Your task to perform on an android device: Open Youtube and go to "Your channel" Image 0: 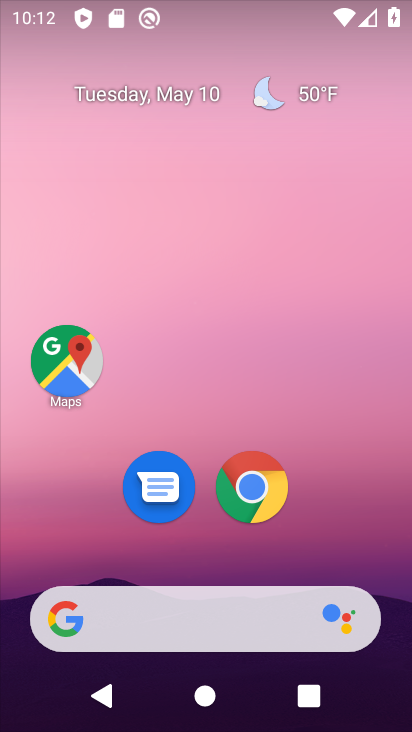
Step 0: drag from (320, 535) to (325, 92)
Your task to perform on an android device: Open Youtube and go to "Your channel" Image 1: 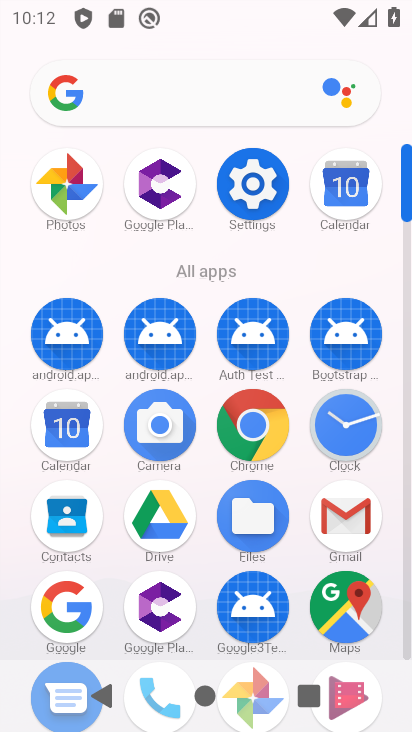
Step 1: click (403, 624)
Your task to perform on an android device: Open Youtube and go to "Your channel" Image 2: 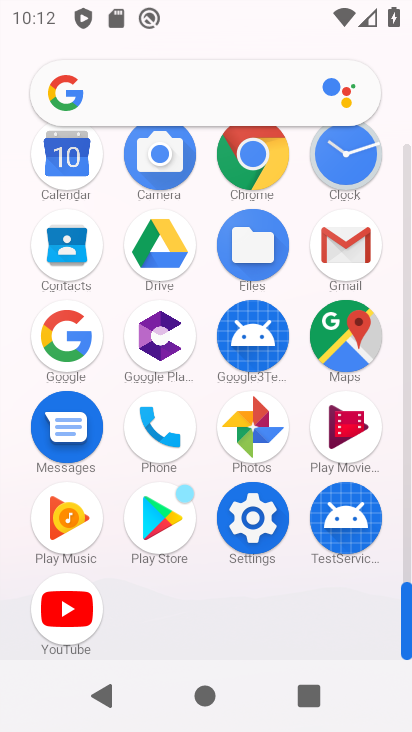
Step 2: click (69, 629)
Your task to perform on an android device: Open Youtube and go to "Your channel" Image 3: 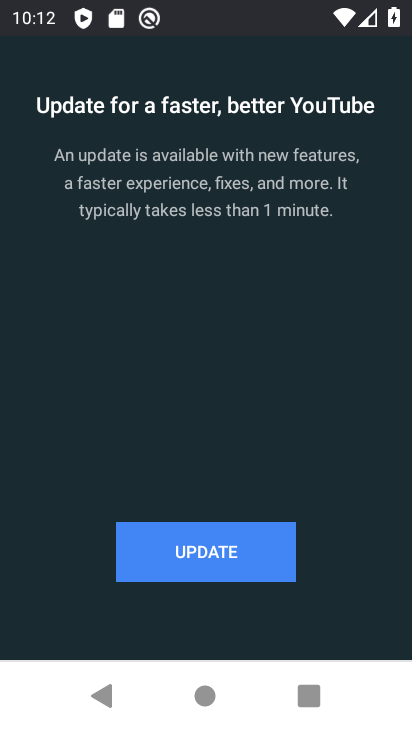
Step 3: click (194, 553)
Your task to perform on an android device: Open Youtube and go to "Your channel" Image 4: 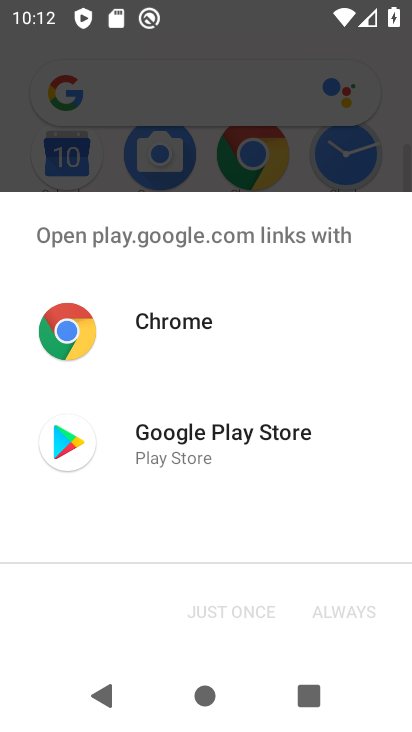
Step 4: click (200, 477)
Your task to perform on an android device: Open Youtube and go to "Your channel" Image 5: 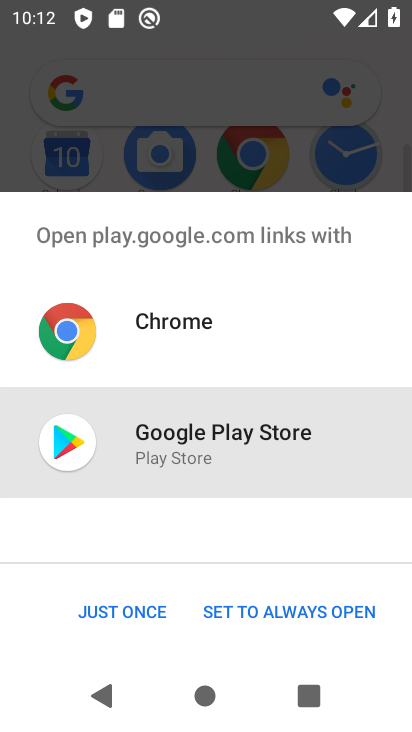
Step 5: click (113, 619)
Your task to perform on an android device: Open Youtube and go to "Your channel" Image 6: 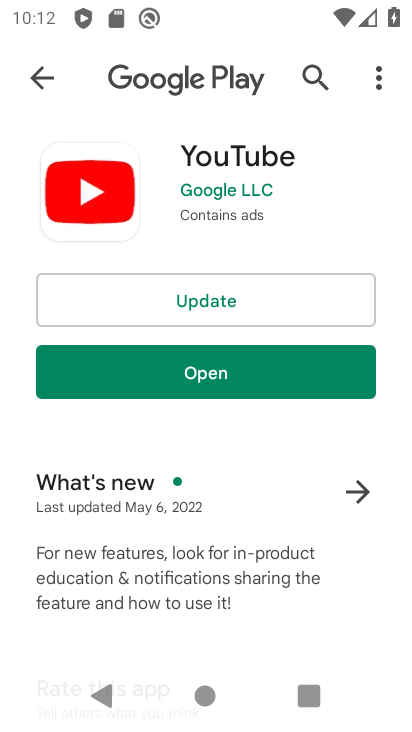
Step 6: click (246, 307)
Your task to perform on an android device: Open Youtube and go to "Your channel" Image 7: 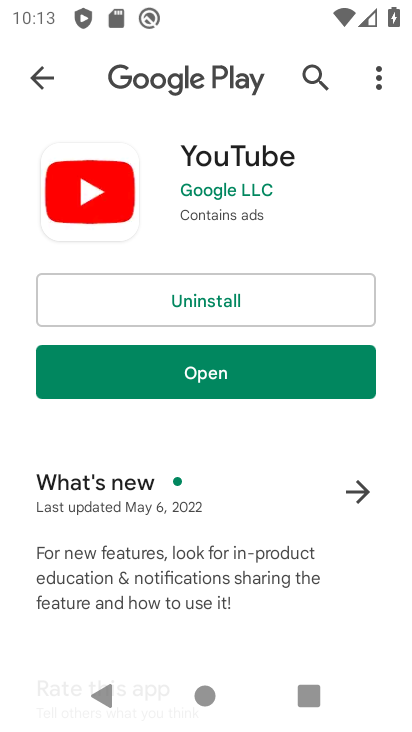
Step 7: click (156, 361)
Your task to perform on an android device: Open Youtube and go to "Your channel" Image 8: 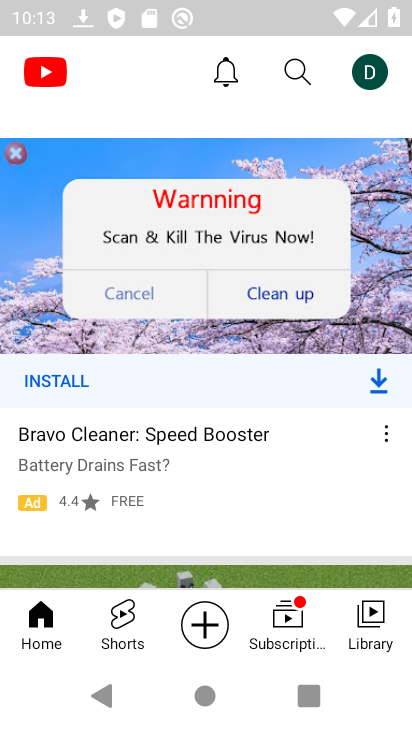
Step 8: click (379, 68)
Your task to perform on an android device: Open Youtube and go to "Your channel" Image 9: 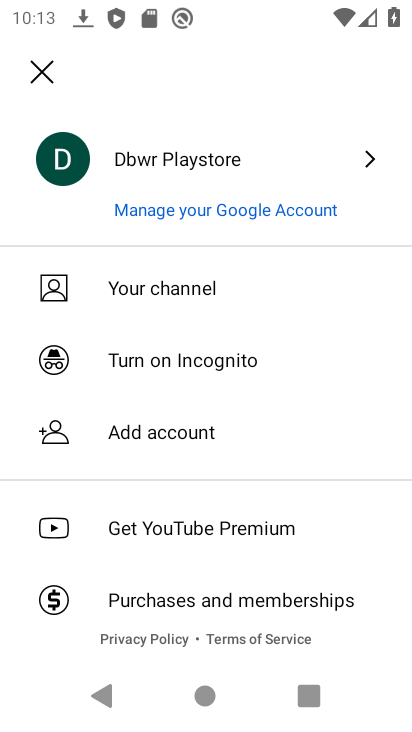
Step 9: click (133, 288)
Your task to perform on an android device: Open Youtube and go to "Your channel" Image 10: 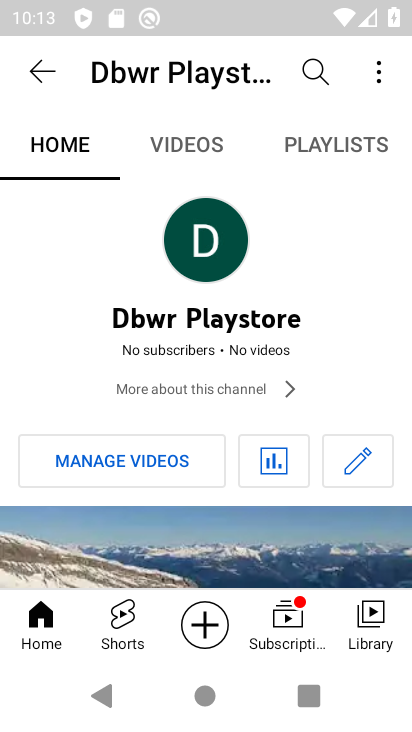
Step 10: task complete